Your task to perform on an android device: change the clock display to digital Image 0: 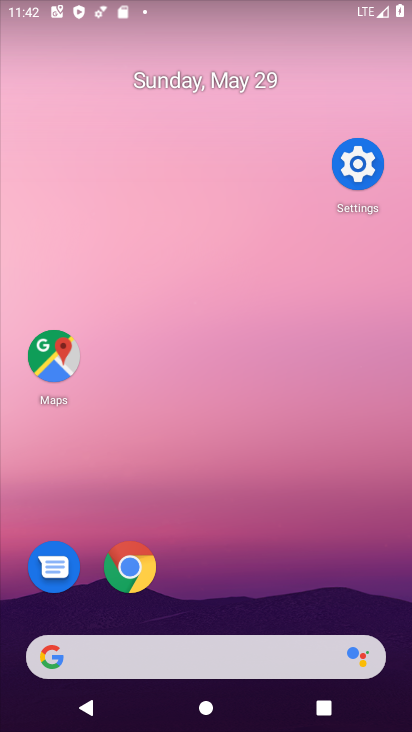
Step 0: drag from (250, 561) to (231, 211)
Your task to perform on an android device: change the clock display to digital Image 1: 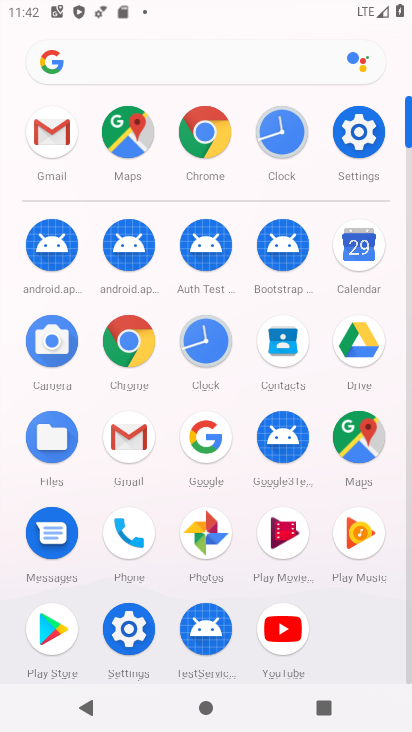
Step 1: click (296, 140)
Your task to perform on an android device: change the clock display to digital Image 2: 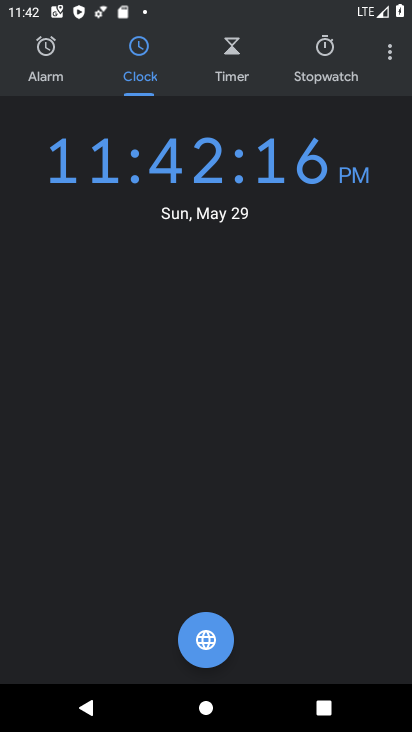
Step 2: task complete